Your task to perform on an android device: Open calendar and show me the first week of next month Image 0: 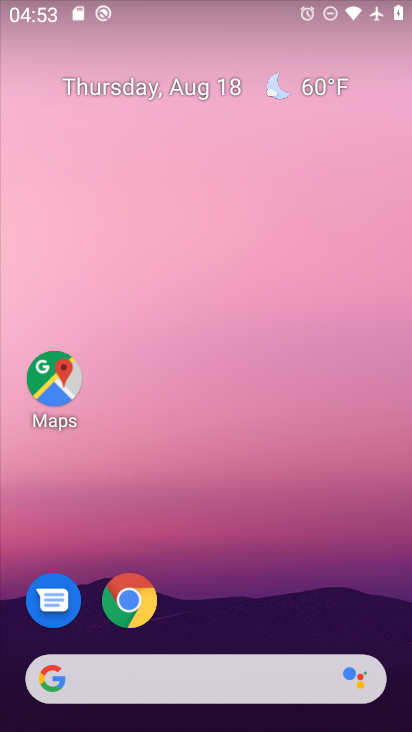
Step 0: press home button
Your task to perform on an android device: Open calendar and show me the first week of next month Image 1: 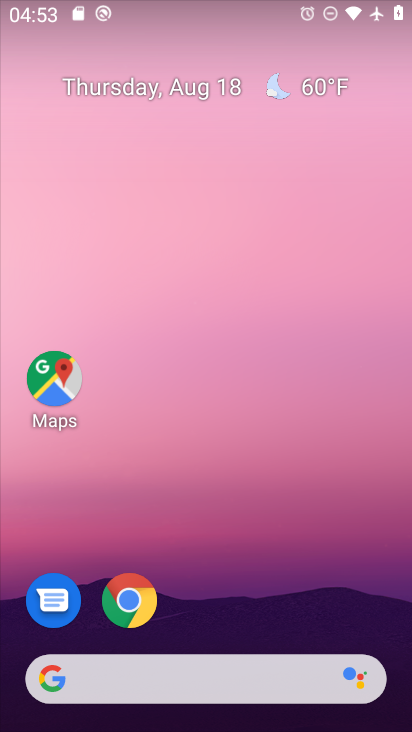
Step 1: drag from (231, 625) to (233, 115)
Your task to perform on an android device: Open calendar and show me the first week of next month Image 2: 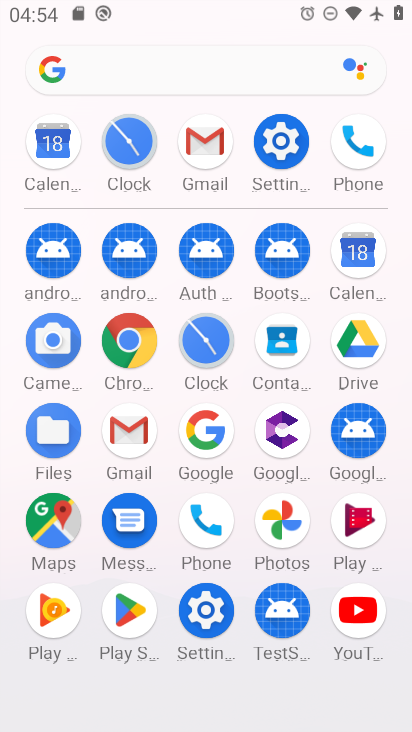
Step 2: click (48, 151)
Your task to perform on an android device: Open calendar and show me the first week of next month Image 3: 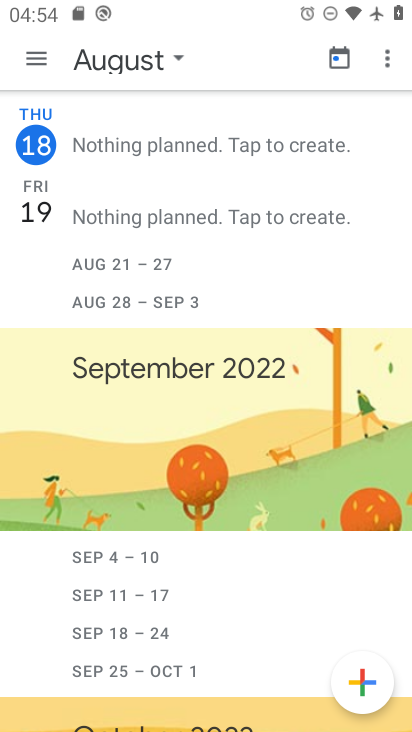
Step 3: click (166, 64)
Your task to perform on an android device: Open calendar and show me the first week of next month Image 4: 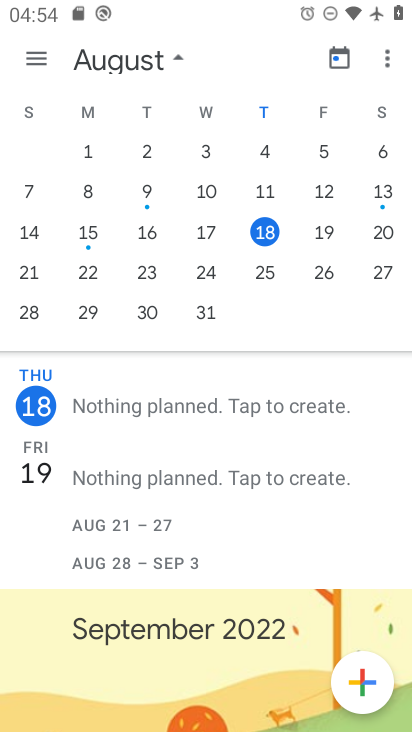
Step 4: drag from (358, 195) to (61, 195)
Your task to perform on an android device: Open calendar and show me the first week of next month Image 5: 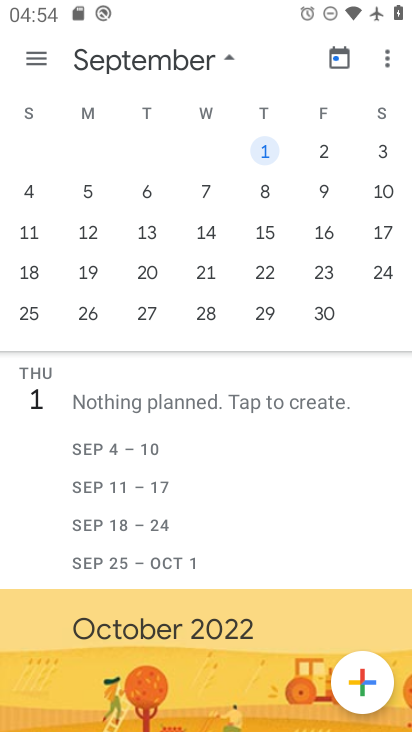
Step 5: click (270, 158)
Your task to perform on an android device: Open calendar and show me the first week of next month Image 6: 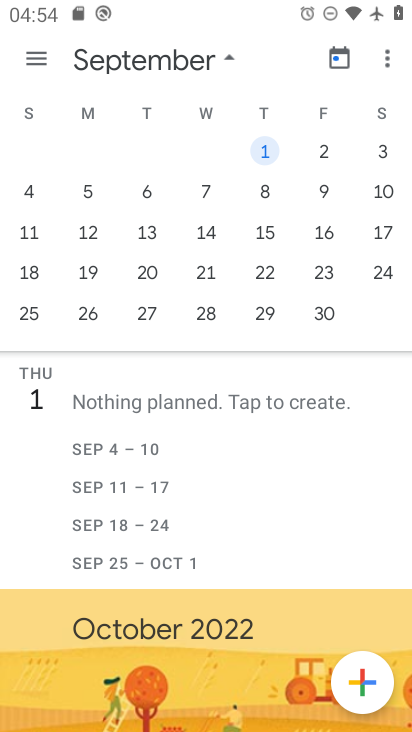
Step 6: click (327, 153)
Your task to perform on an android device: Open calendar and show me the first week of next month Image 7: 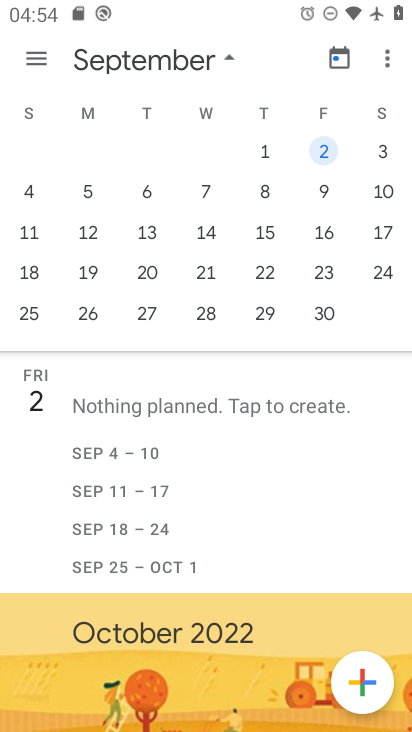
Step 7: click (384, 159)
Your task to perform on an android device: Open calendar and show me the first week of next month Image 8: 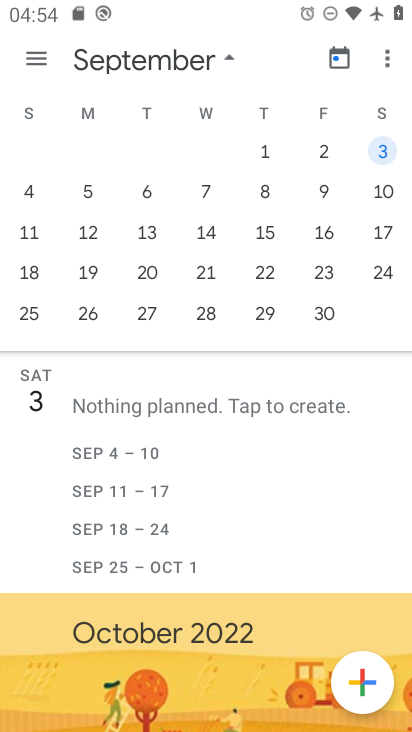
Step 8: task complete